Your task to perform on an android device: change your default location settings in chrome Image 0: 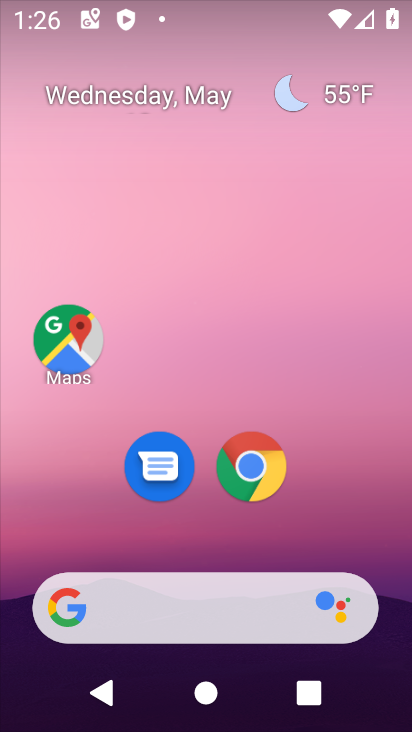
Step 0: click (234, 468)
Your task to perform on an android device: change your default location settings in chrome Image 1: 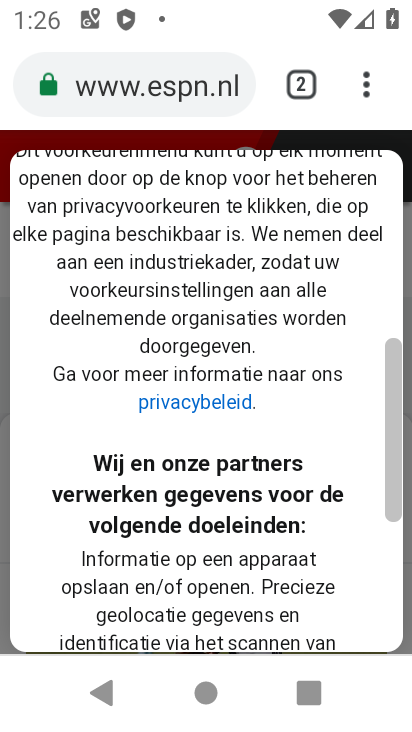
Step 1: click (353, 83)
Your task to perform on an android device: change your default location settings in chrome Image 2: 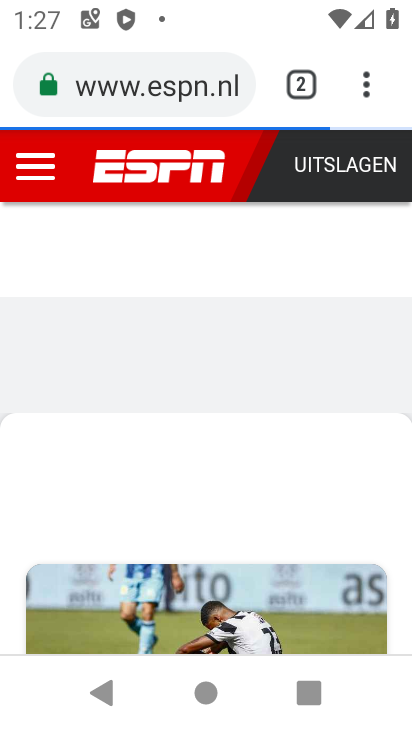
Step 2: click (372, 102)
Your task to perform on an android device: change your default location settings in chrome Image 3: 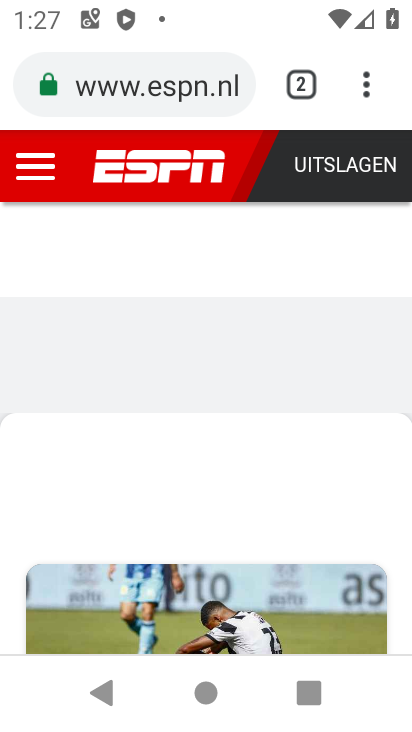
Step 3: click (368, 97)
Your task to perform on an android device: change your default location settings in chrome Image 4: 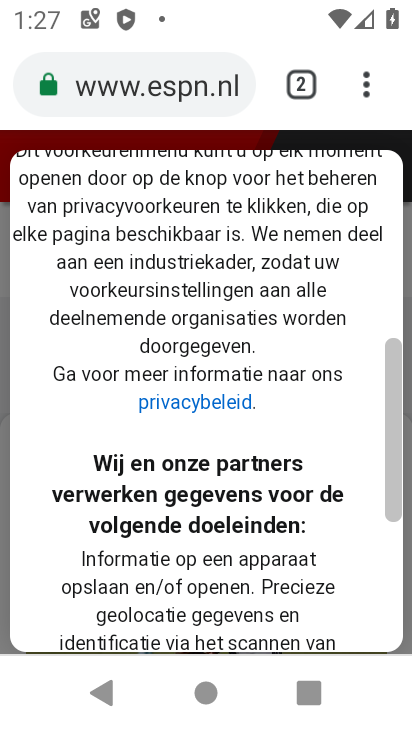
Step 4: click (372, 95)
Your task to perform on an android device: change your default location settings in chrome Image 5: 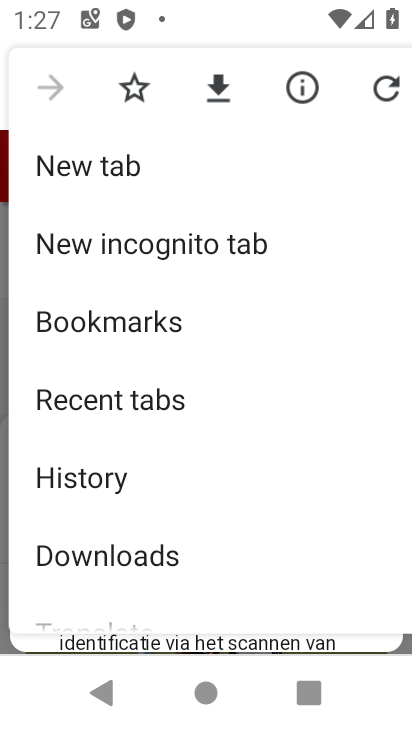
Step 5: drag from (210, 506) to (195, 65)
Your task to perform on an android device: change your default location settings in chrome Image 6: 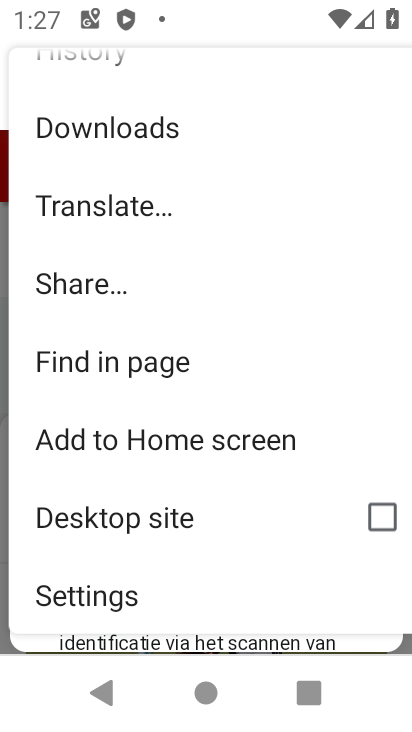
Step 6: click (122, 592)
Your task to perform on an android device: change your default location settings in chrome Image 7: 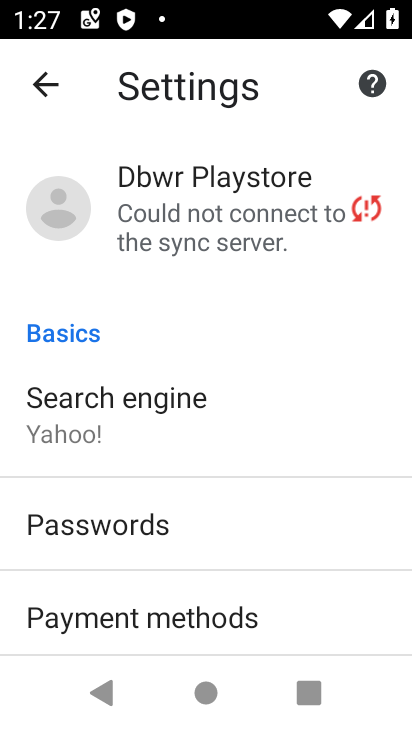
Step 7: drag from (133, 573) to (272, 125)
Your task to perform on an android device: change your default location settings in chrome Image 8: 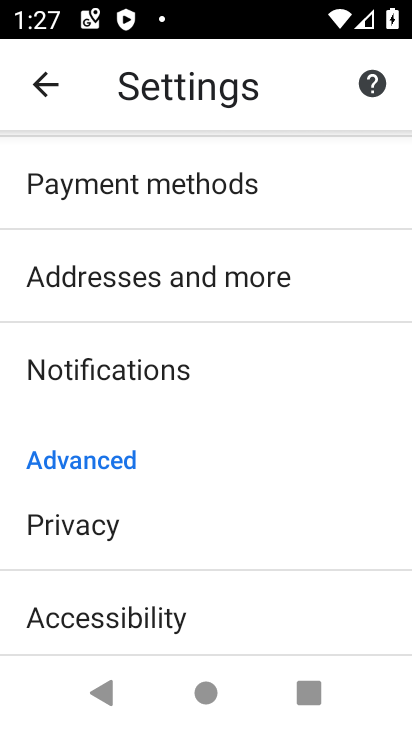
Step 8: drag from (160, 559) to (214, 256)
Your task to perform on an android device: change your default location settings in chrome Image 9: 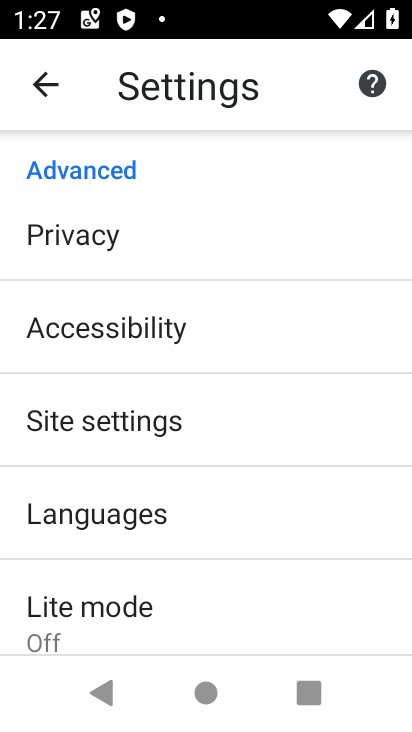
Step 9: click (137, 411)
Your task to perform on an android device: change your default location settings in chrome Image 10: 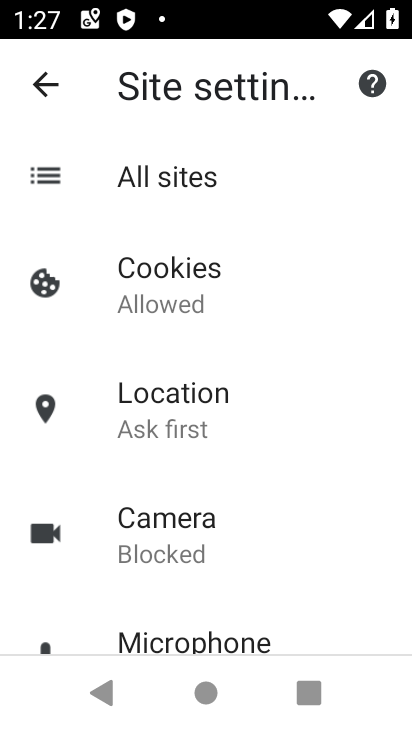
Step 10: click (149, 430)
Your task to perform on an android device: change your default location settings in chrome Image 11: 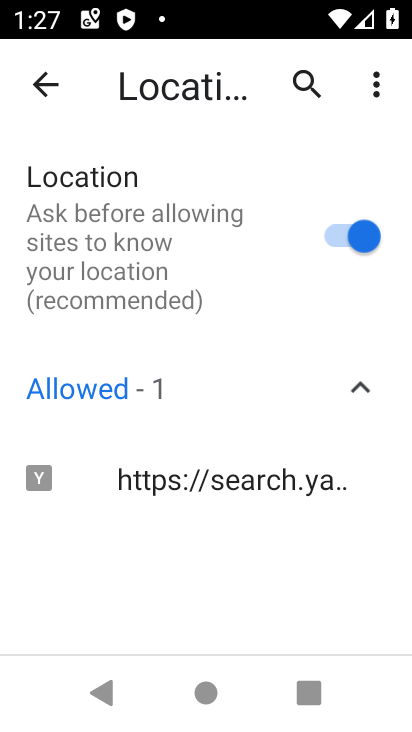
Step 11: click (333, 234)
Your task to perform on an android device: change your default location settings in chrome Image 12: 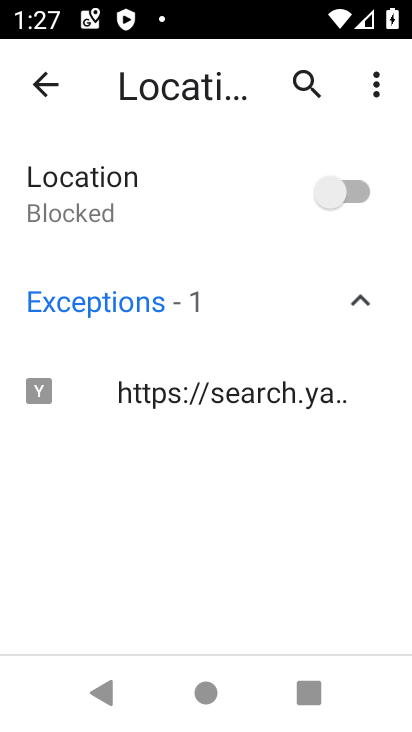
Step 12: task complete